Your task to perform on an android device: change keyboard looks Image 0: 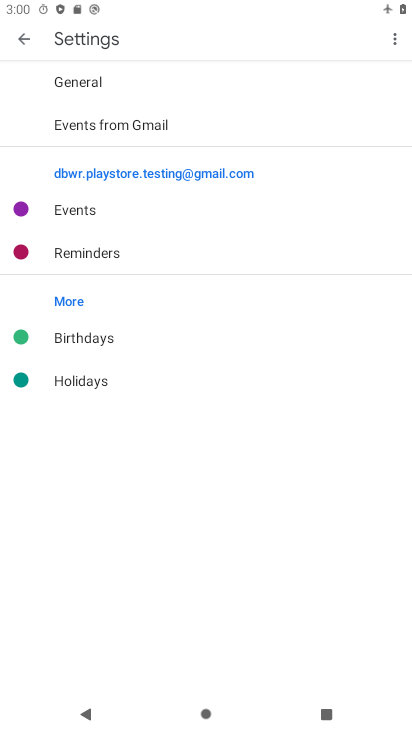
Step 0: press home button
Your task to perform on an android device: change keyboard looks Image 1: 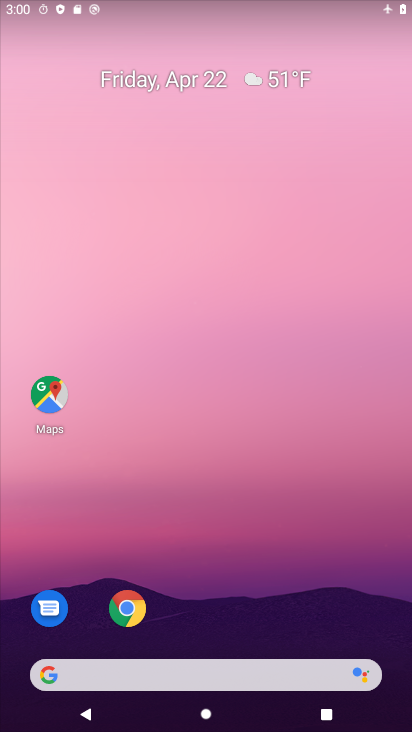
Step 1: drag from (272, 602) to (234, 9)
Your task to perform on an android device: change keyboard looks Image 2: 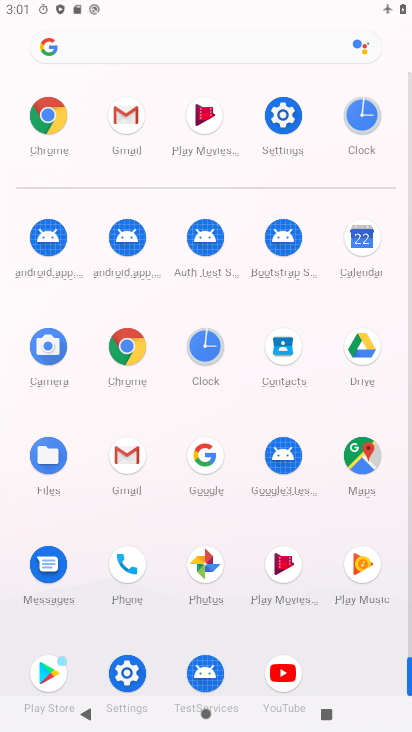
Step 2: click (285, 128)
Your task to perform on an android device: change keyboard looks Image 3: 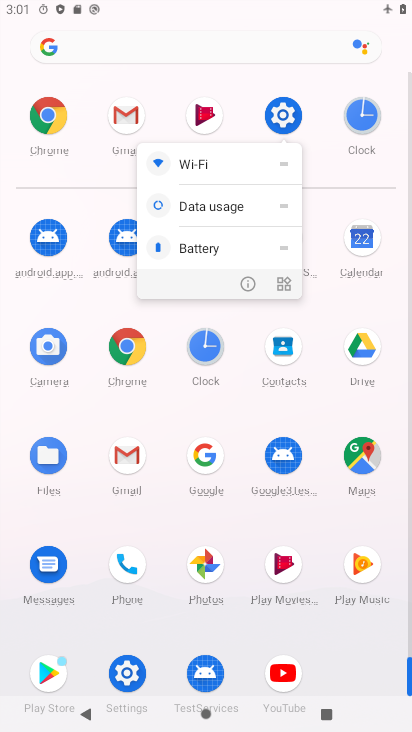
Step 3: click (279, 119)
Your task to perform on an android device: change keyboard looks Image 4: 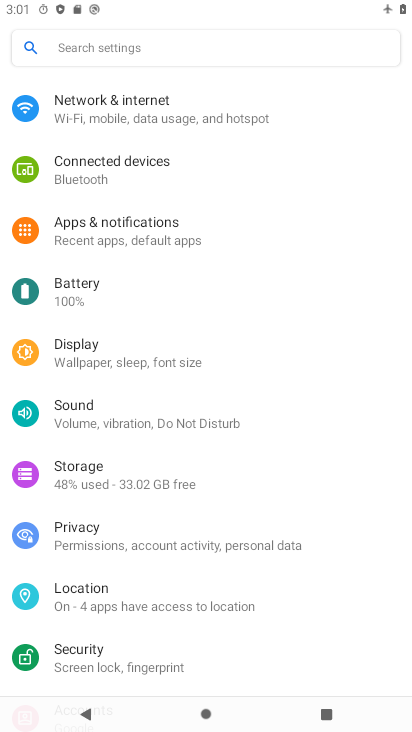
Step 4: drag from (313, 635) to (313, 145)
Your task to perform on an android device: change keyboard looks Image 5: 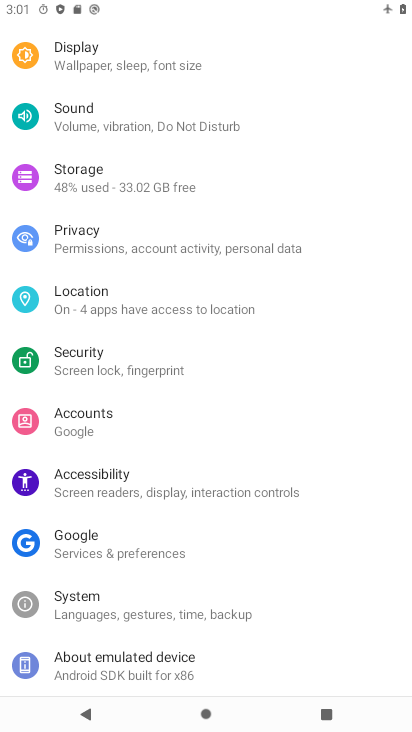
Step 5: click (176, 611)
Your task to perform on an android device: change keyboard looks Image 6: 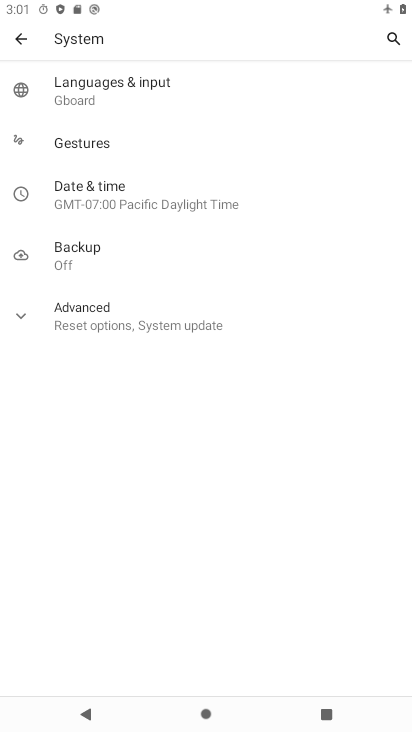
Step 6: click (137, 88)
Your task to perform on an android device: change keyboard looks Image 7: 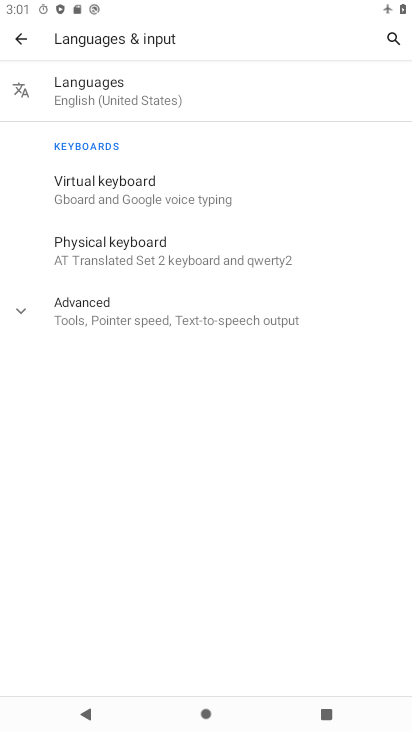
Step 7: click (163, 193)
Your task to perform on an android device: change keyboard looks Image 8: 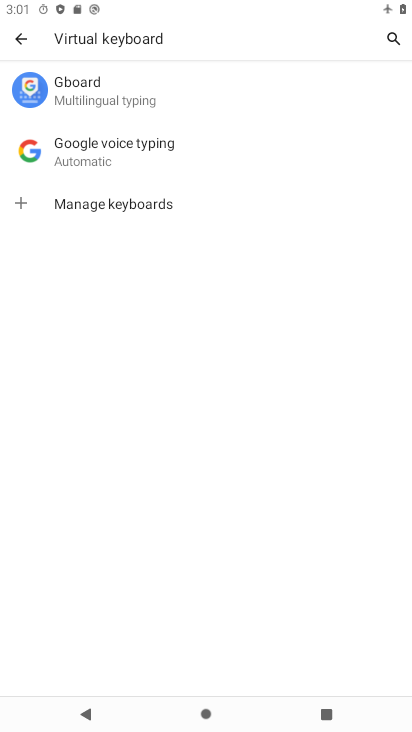
Step 8: click (150, 88)
Your task to perform on an android device: change keyboard looks Image 9: 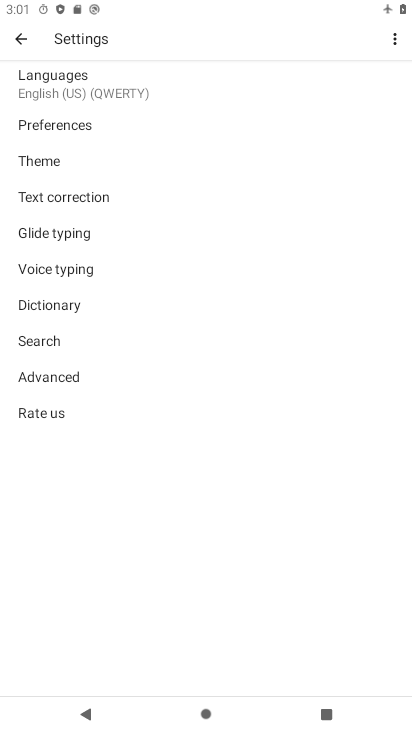
Step 9: click (64, 161)
Your task to perform on an android device: change keyboard looks Image 10: 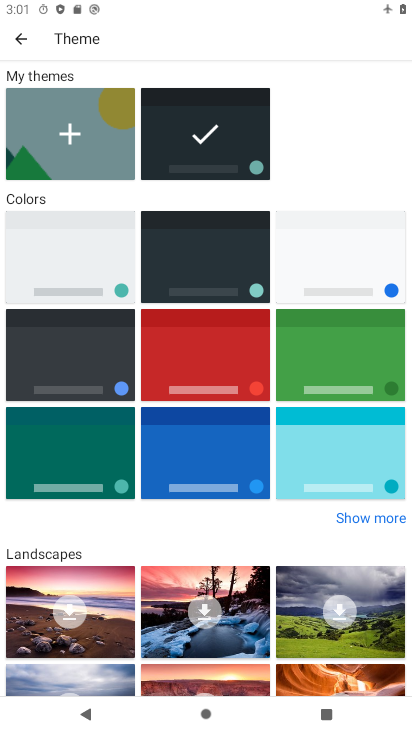
Step 10: click (333, 350)
Your task to perform on an android device: change keyboard looks Image 11: 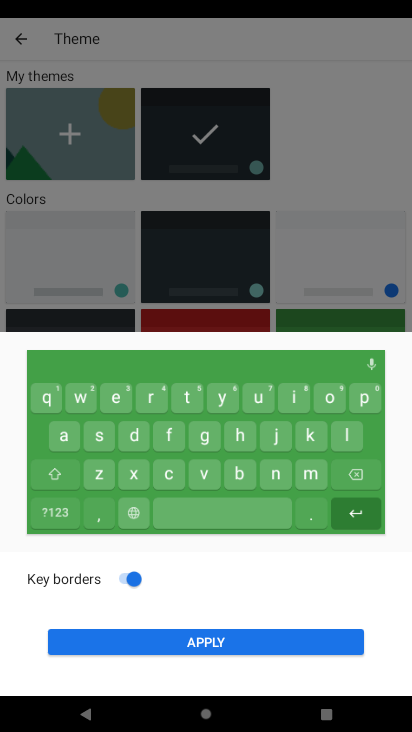
Step 11: click (188, 644)
Your task to perform on an android device: change keyboard looks Image 12: 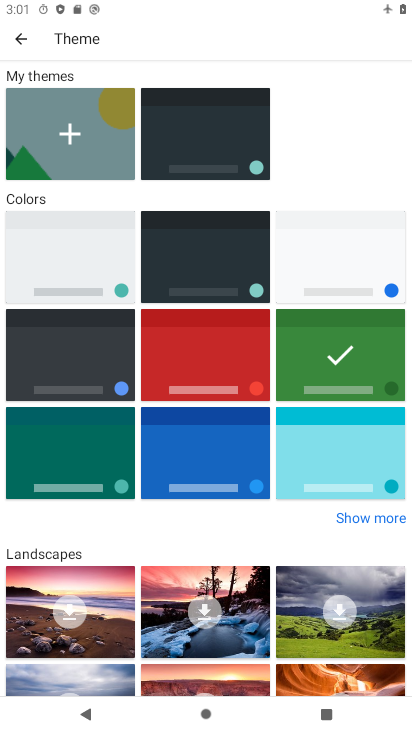
Step 12: task complete